Your task to perform on an android device: show emergency info Image 0: 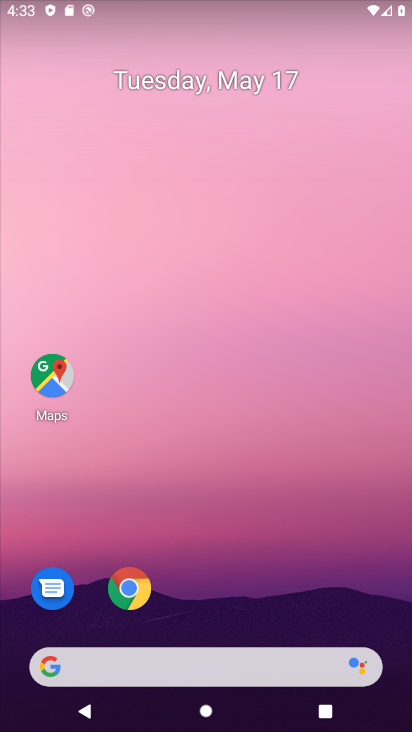
Step 0: drag from (217, 505) to (201, 178)
Your task to perform on an android device: show emergency info Image 1: 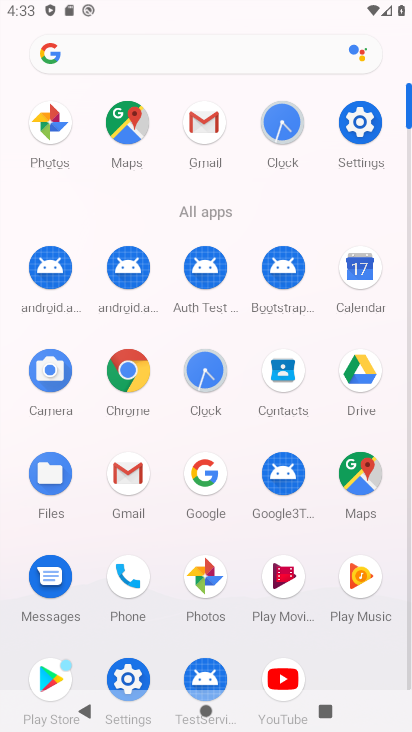
Step 1: click (365, 121)
Your task to perform on an android device: show emergency info Image 2: 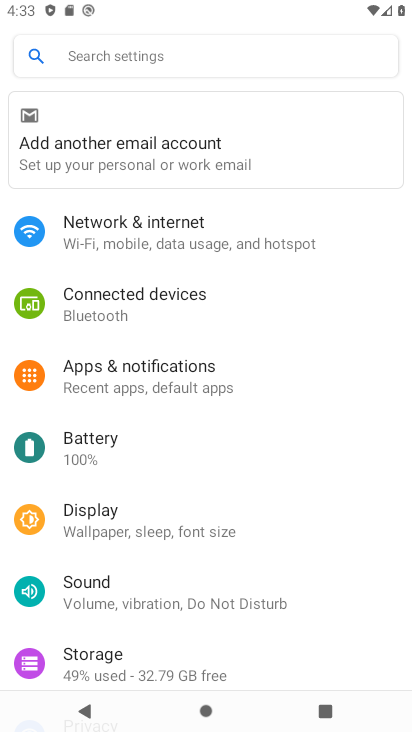
Step 2: click (173, 59)
Your task to perform on an android device: show emergency info Image 3: 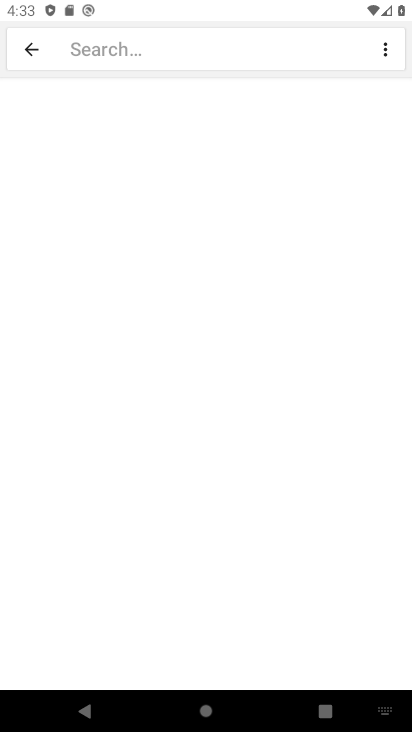
Step 3: type "emergency info"
Your task to perform on an android device: show emergency info Image 4: 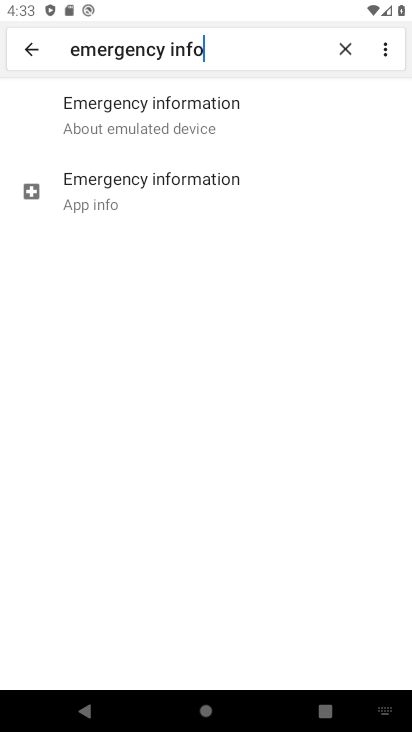
Step 4: click (118, 194)
Your task to perform on an android device: show emergency info Image 5: 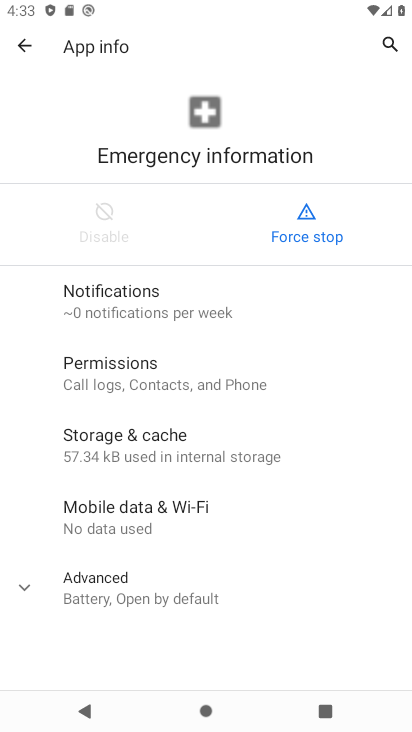
Step 5: task complete